Your task to perform on an android device: all mails in gmail Image 0: 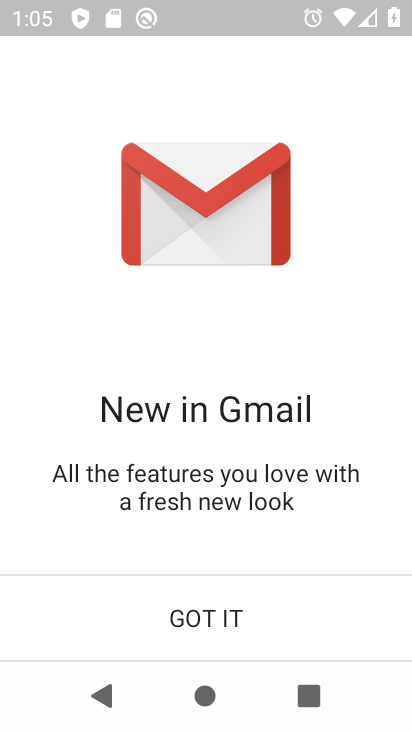
Step 0: click (208, 625)
Your task to perform on an android device: all mails in gmail Image 1: 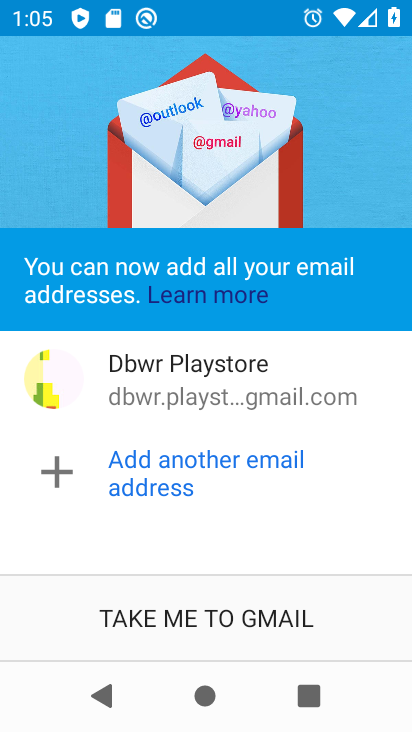
Step 1: click (208, 625)
Your task to perform on an android device: all mails in gmail Image 2: 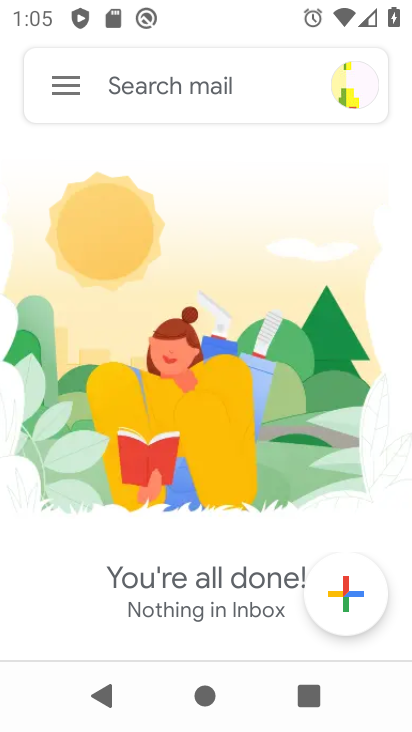
Step 2: click (54, 84)
Your task to perform on an android device: all mails in gmail Image 3: 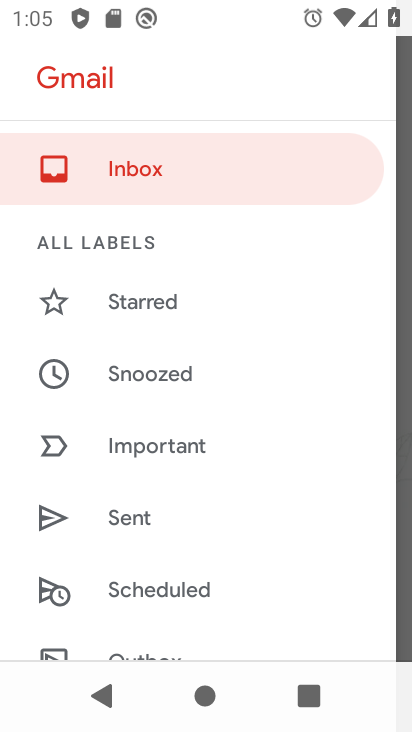
Step 3: drag from (269, 617) to (234, 167)
Your task to perform on an android device: all mails in gmail Image 4: 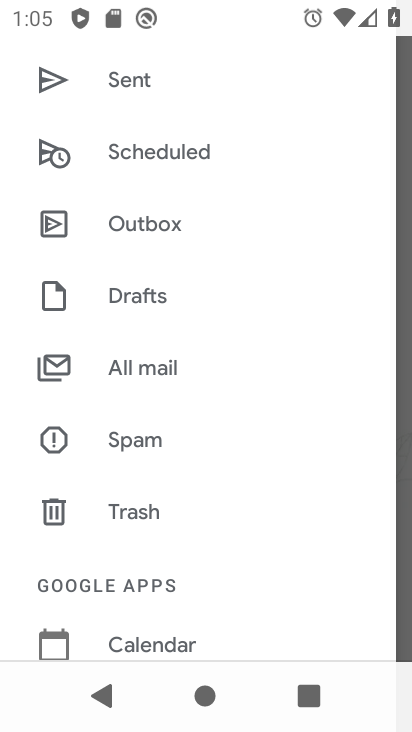
Step 4: click (258, 375)
Your task to perform on an android device: all mails in gmail Image 5: 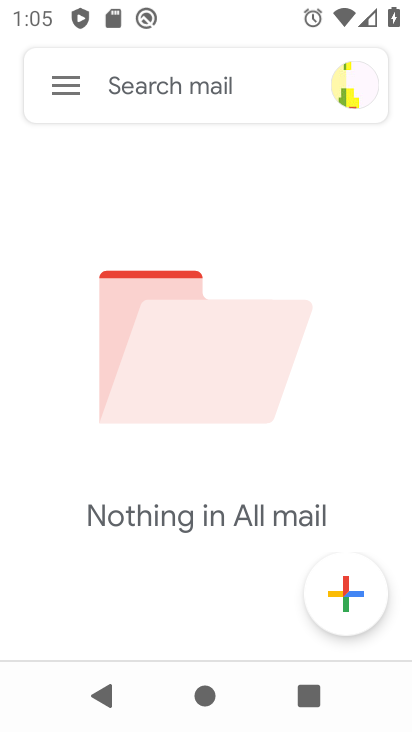
Step 5: task complete